Your task to perform on an android device: Open the map Image 0: 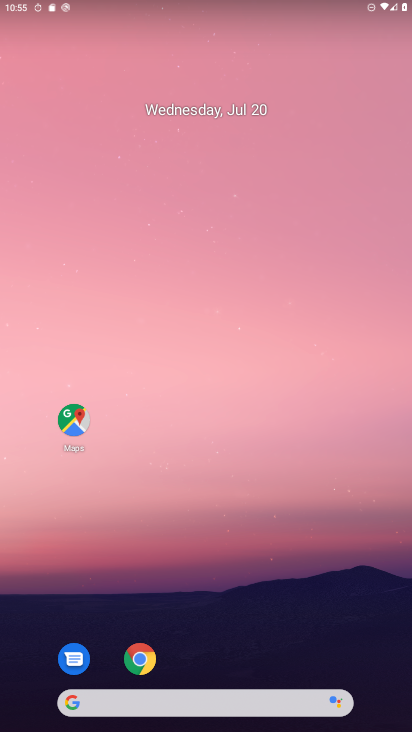
Step 0: drag from (223, 546) to (221, 60)
Your task to perform on an android device: Open the map Image 1: 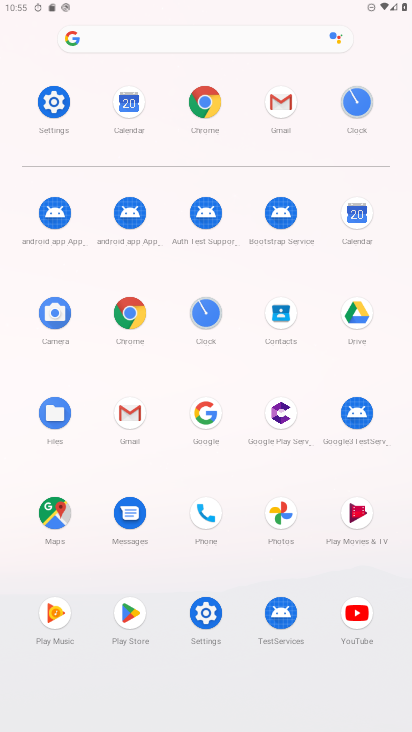
Step 1: click (53, 505)
Your task to perform on an android device: Open the map Image 2: 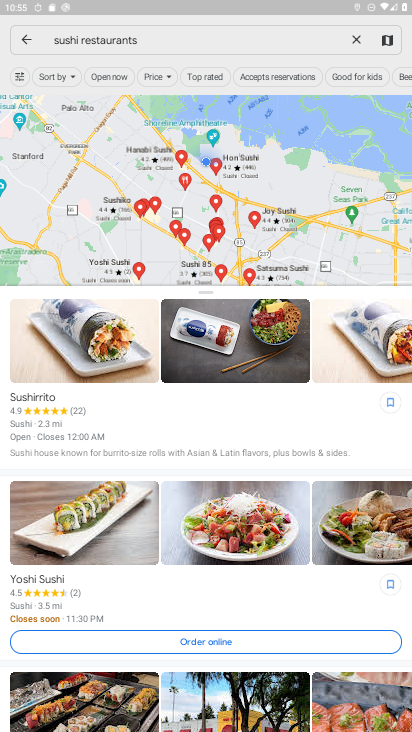
Step 2: task complete